Your task to perform on an android device: turn on javascript in the chrome app Image 0: 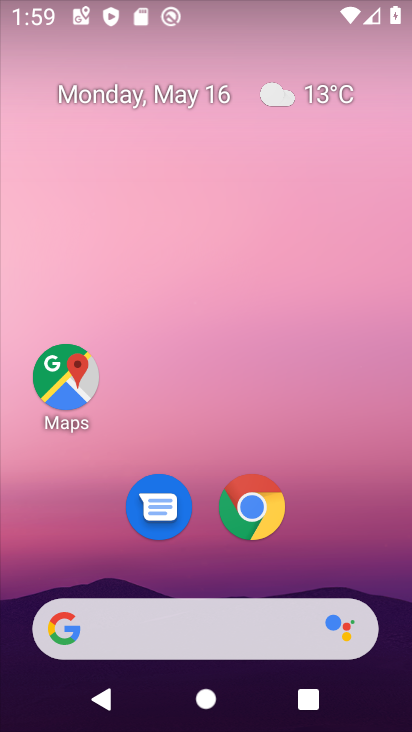
Step 0: drag from (395, 566) to (390, 87)
Your task to perform on an android device: turn on javascript in the chrome app Image 1: 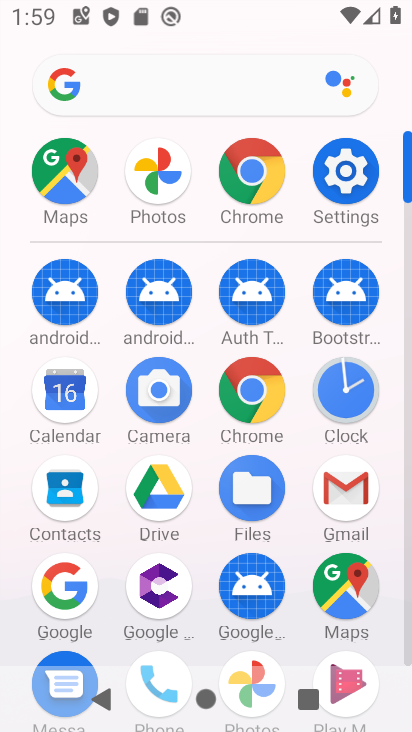
Step 1: click (267, 406)
Your task to perform on an android device: turn on javascript in the chrome app Image 2: 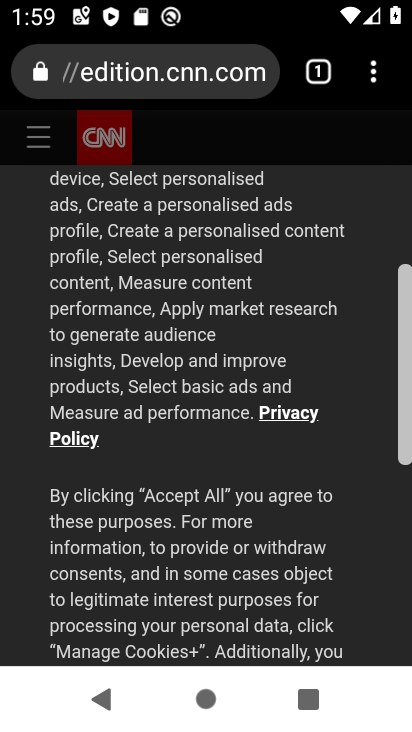
Step 2: click (376, 74)
Your task to perform on an android device: turn on javascript in the chrome app Image 3: 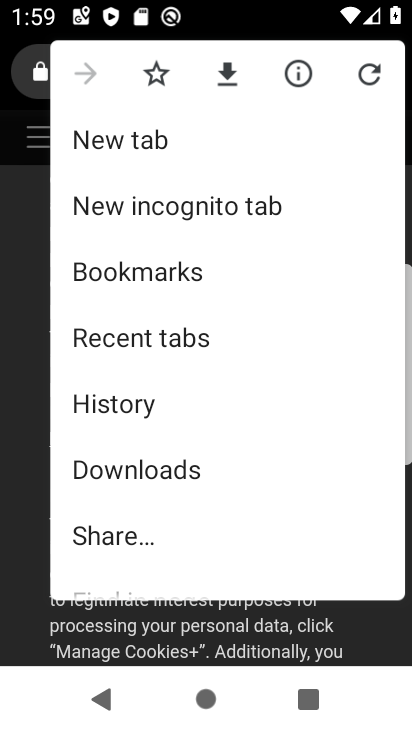
Step 3: drag from (337, 462) to (340, 359)
Your task to perform on an android device: turn on javascript in the chrome app Image 4: 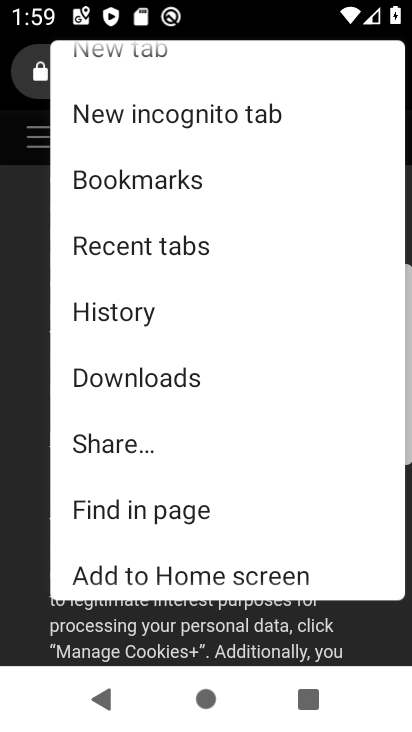
Step 4: drag from (331, 505) to (334, 400)
Your task to perform on an android device: turn on javascript in the chrome app Image 5: 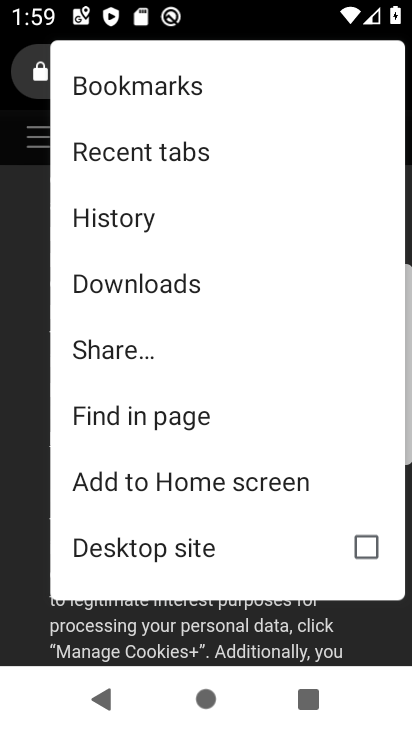
Step 5: drag from (314, 539) to (327, 420)
Your task to perform on an android device: turn on javascript in the chrome app Image 6: 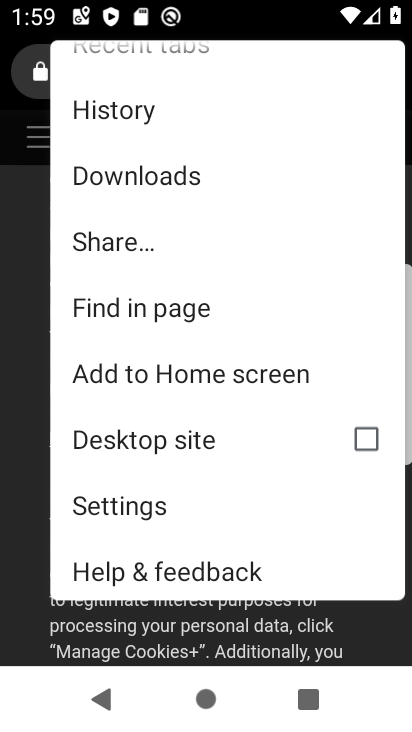
Step 6: click (139, 500)
Your task to perform on an android device: turn on javascript in the chrome app Image 7: 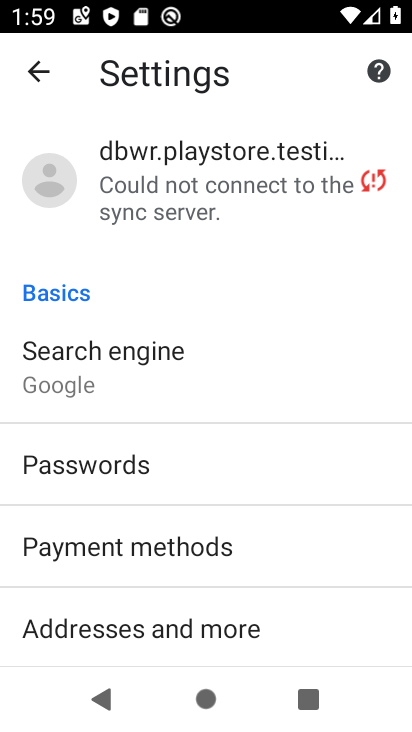
Step 7: drag from (326, 579) to (326, 508)
Your task to perform on an android device: turn on javascript in the chrome app Image 8: 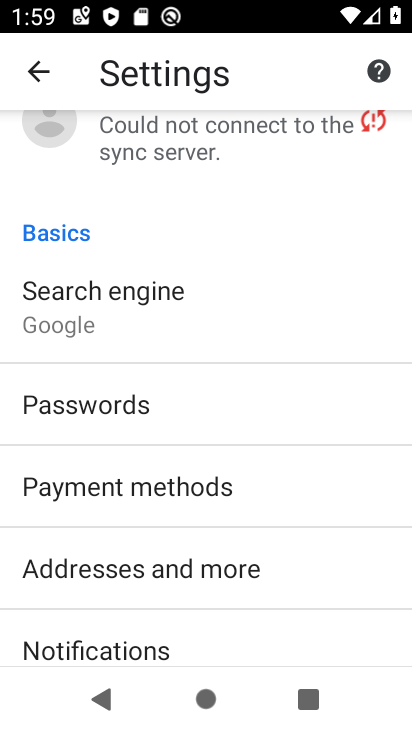
Step 8: drag from (327, 583) to (330, 487)
Your task to perform on an android device: turn on javascript in the chrome app Image 9: 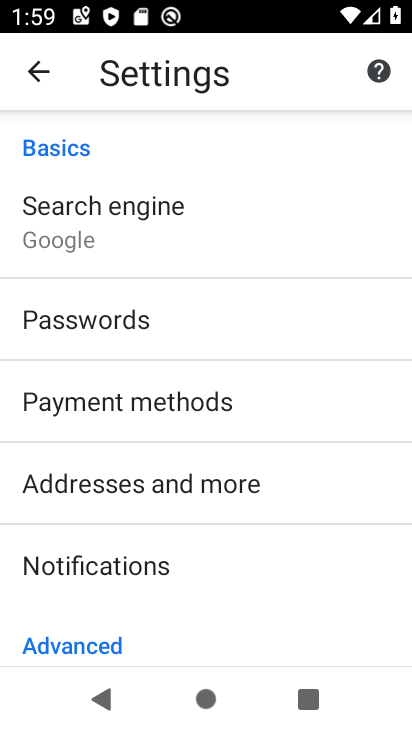
Step 9: drag from (329, 605) to (328, 517)
Your task to perform on an android device: turn on javascript in the chrome app Image 10: 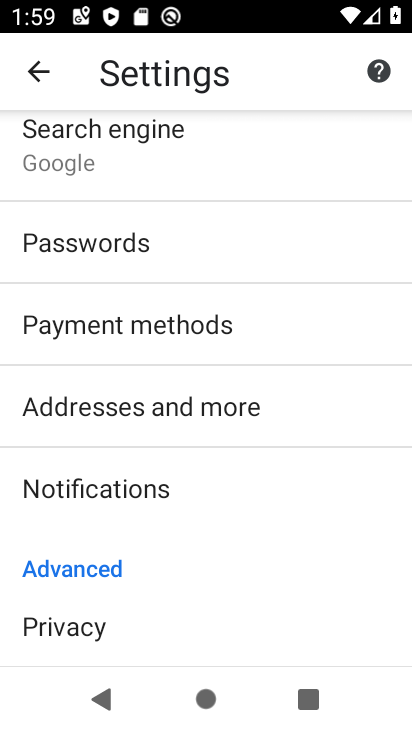
Step 10: drag from (333, 614) to (337, 540)
Your task to perform on an android device: turn on javascript in the chrome app Image 11: 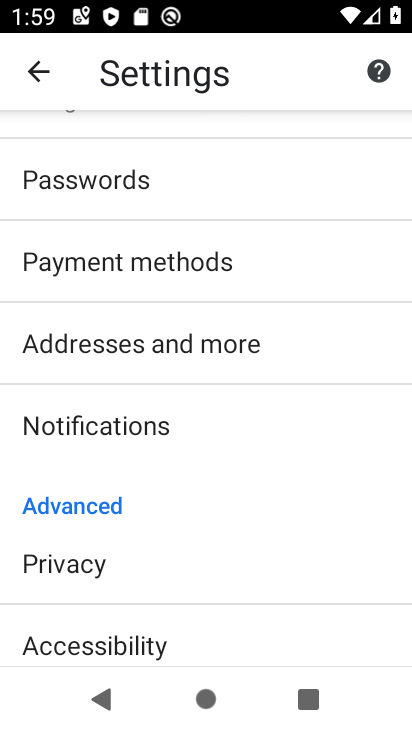
Step 11: drag from (327, 623) to (328, 537)
Your task to perform on an android device: turn on javascript in the chrome app Image 12: 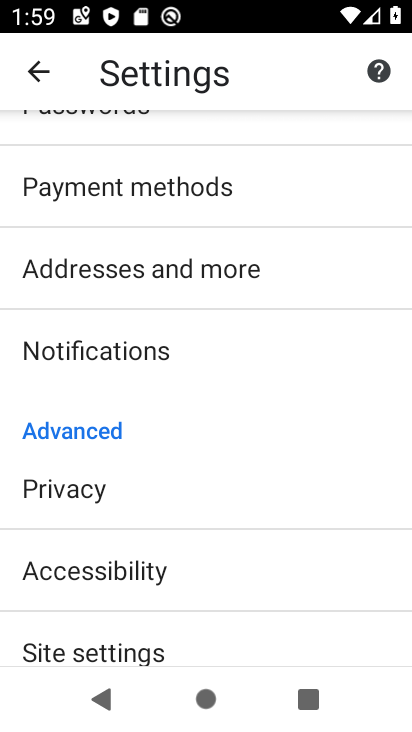
Step 12: drag from (324, 634) to (324, 532)
Your task to perform on an android device: turn on javascript in the chrome app Image 13: 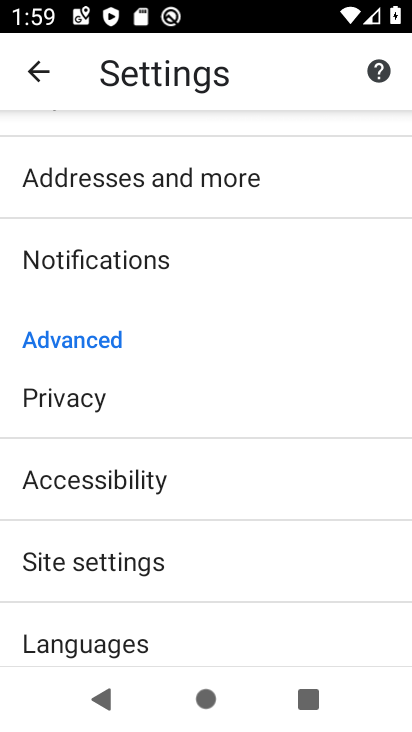
Step 13: click (301, 561)
Your task to perform on an android device: turn on javascript in the chrome app Image 14: 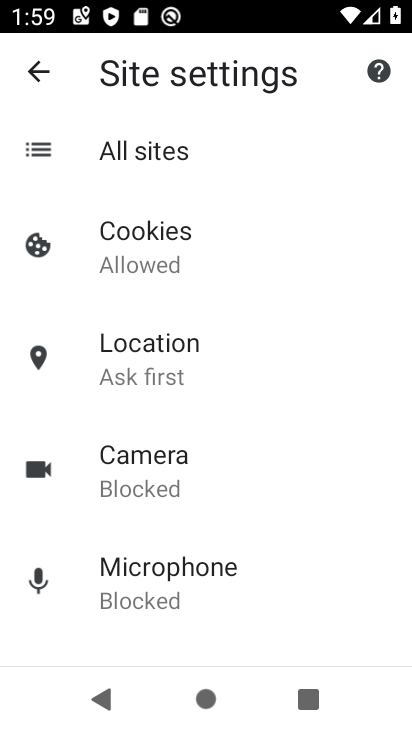
Step 14: drag from (326, 588) to (325, 510)
Your task to perform on an android device: turn on javascript in the chrome app Image 15: 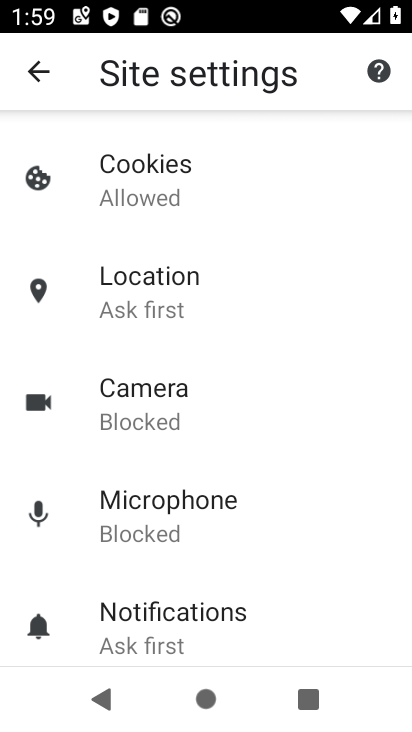
Step 15: drag from (348, 612) to (349, 496)
Your task to perform on an android device: turn on javascript in the chrome app Image 16: 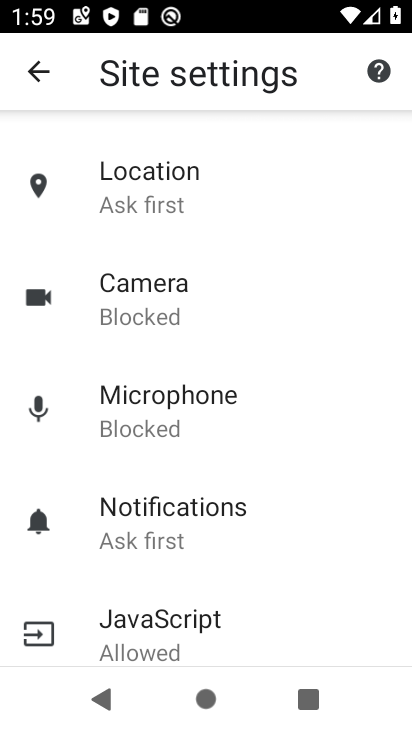
Step 16: drag from (363, 603) to (361, 506)
Your task to perform on an android device: turn on javascript in the chrome app Image 17: 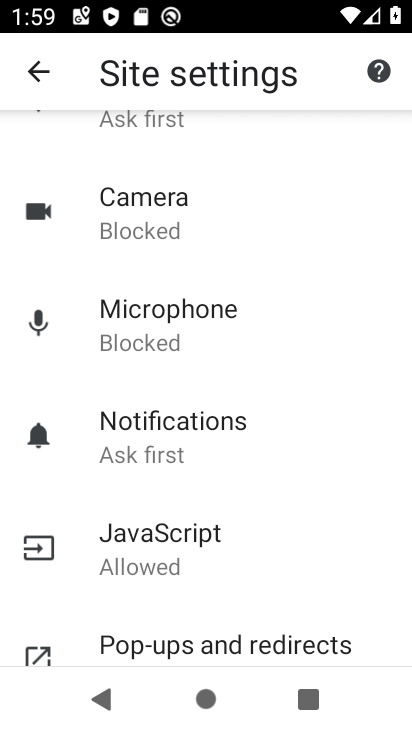
Step 17: drag from (357, 598) to (364, 495)
Your task to perform on an android device: turn on javascript in the chrome app Image 18: 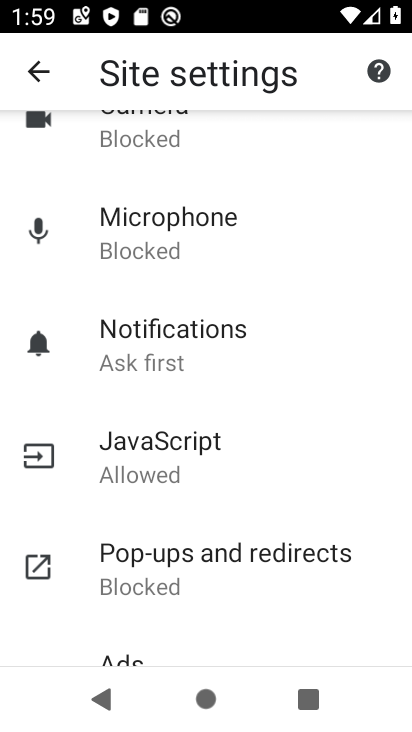
Step 18: click (195, 454)
Your task to perform on an android device: turn on javascript in the chrome app Image 19: 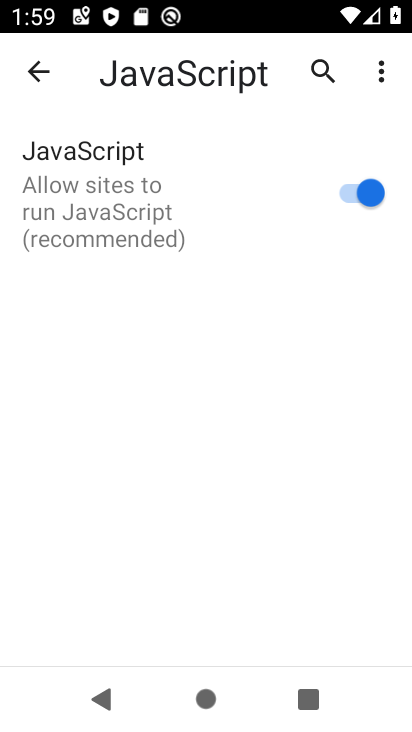
Step 19: task complete